Your task to perform on an android device: turn off notifications in google photos Image 0: 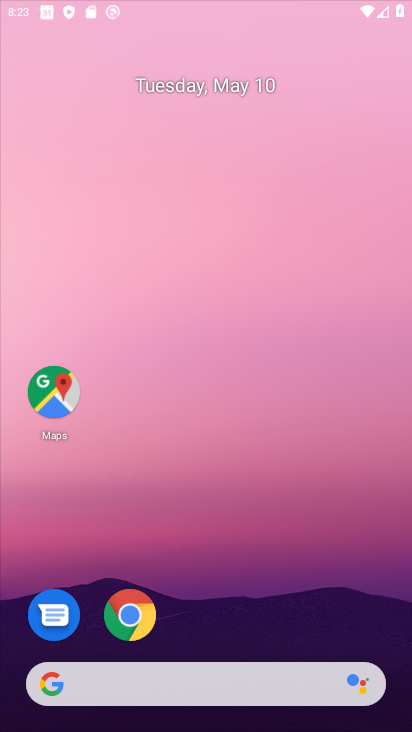
Step 0: click (212, 694)
Your task to perform on an android device: turn off notifications in google photos Image 1: 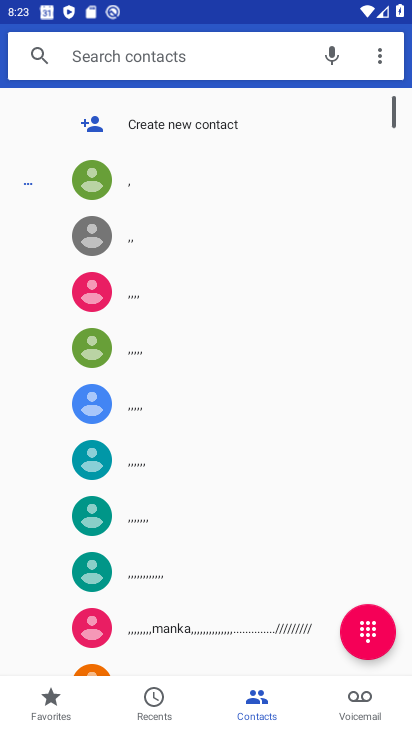
Step 1: press home button
Your task to perform on an android device: turn off notifications in google photos Image 2: 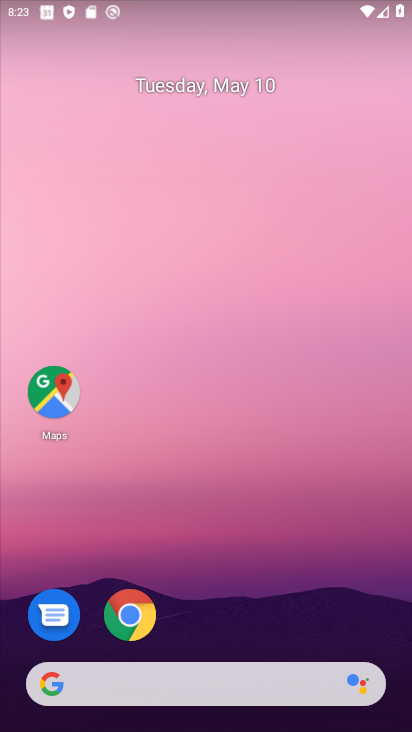
Step 2: drag from (262, 593) to (292, 312)
Your task to perform on an android device: turn off notifications in google photos Image 3: 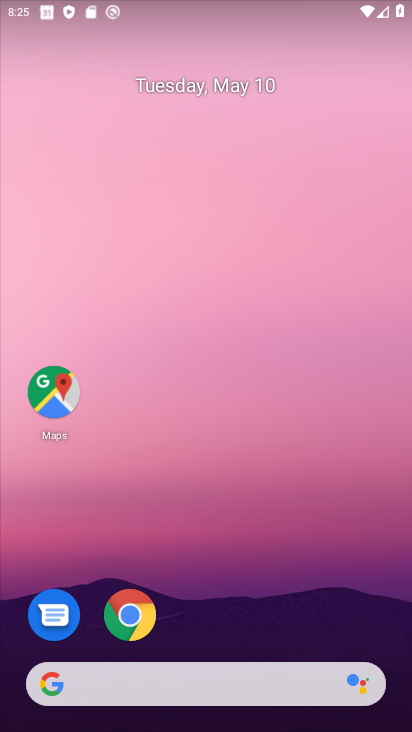
Step 3: drag from (177, 602) to (231, 224)
Your task to perform on an android device: turn off notifications in google photos Image 4: 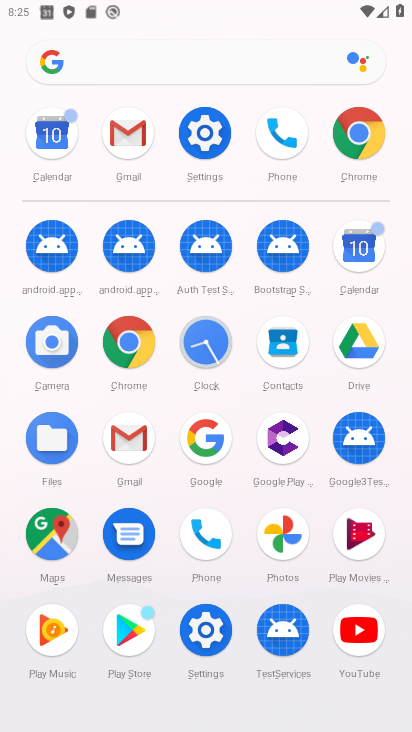
Step 4: click (285, 520)
Your task to perform on an android device: turn off notifications in google photos Image 5: 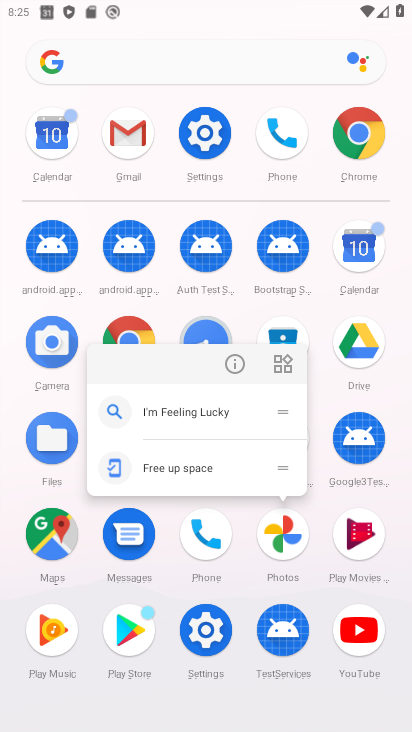
Step 5: click (225, 376)
Your task to perform on an android device: turn off notifications in google photos Image 6: 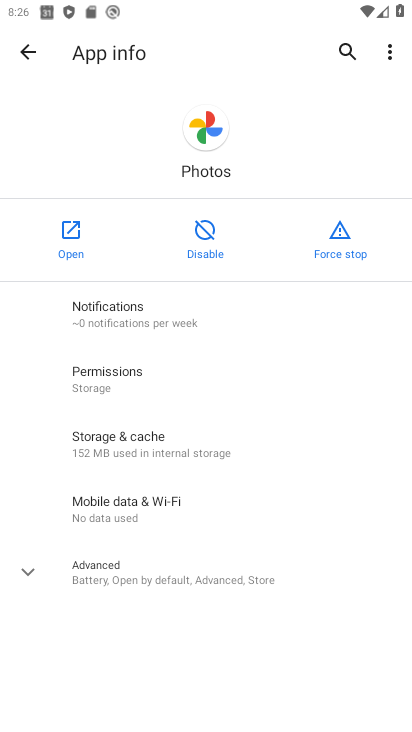
Step 6: drag from (184, 524) to (237, 178)
Your task to perform on an android device: turn off notifications in google photos Image 7: 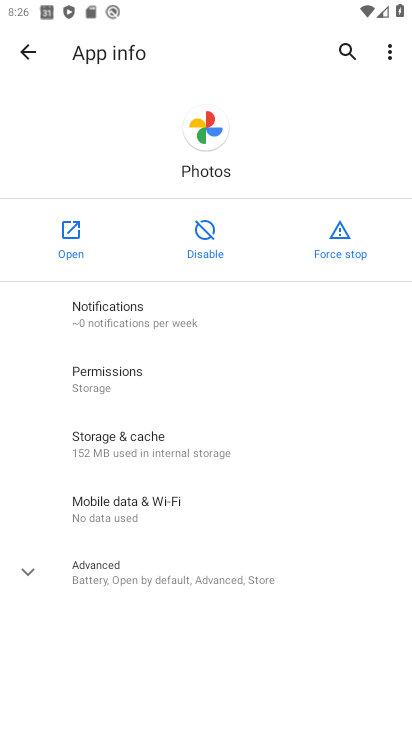
Step 7: click (74, 228)
Your task to perform on an android device: turn off notifications in google photos Image 8: 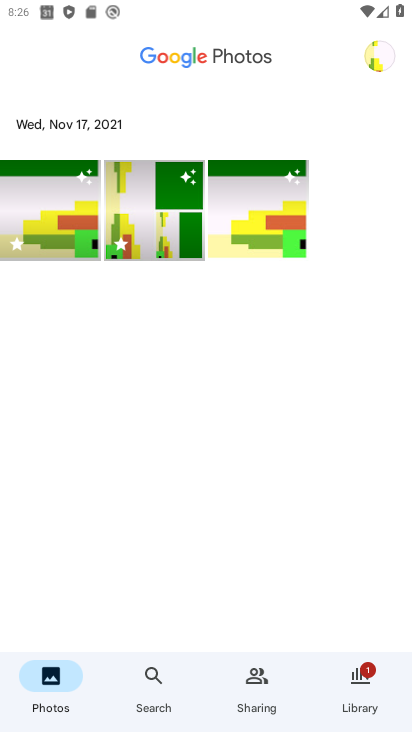
Step 8: click (367, 58)
Your task to perform on an android device: turn off notifications in google photos Image 9: 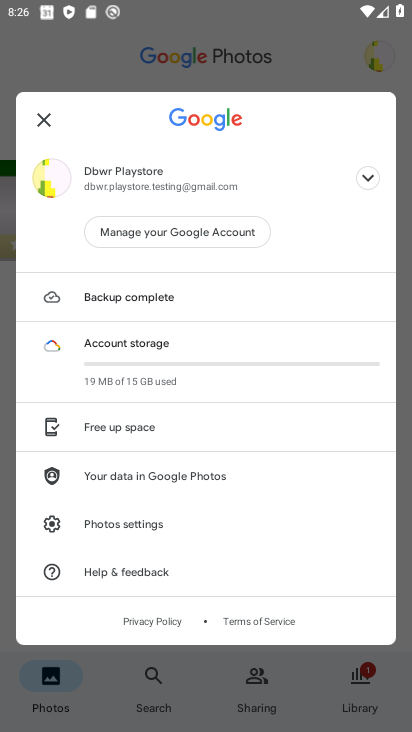
Step 9: click (133, 520)
Your task to perform on an android device: turn off notifications in google photos Image 10: 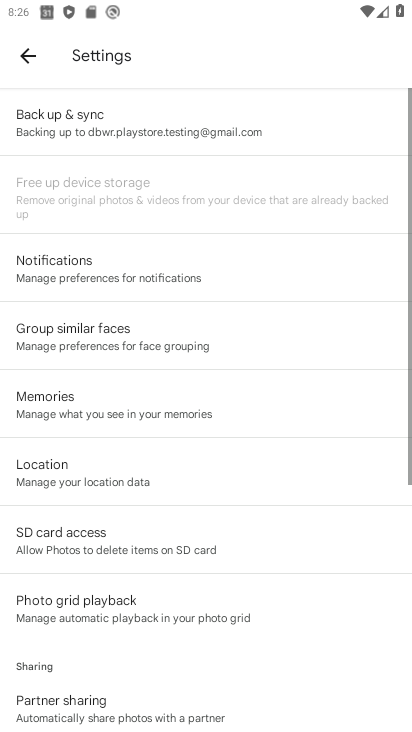
Step 10: drag from (181, 526) to (220, 272)
Your task to perform on an android device: turn off notifications in google photos Image 11: 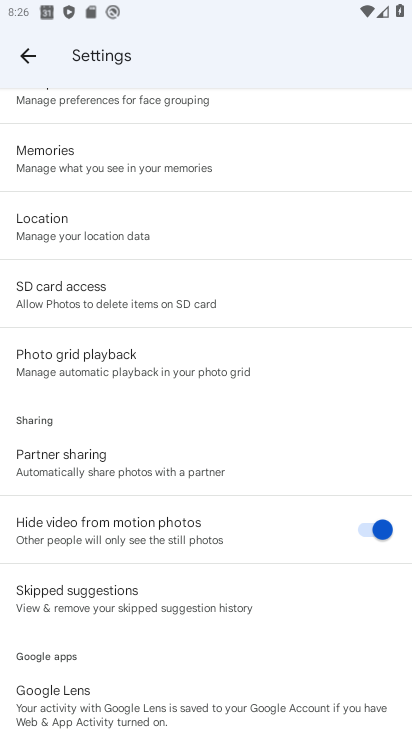
Step 11: drag from (150, 216) to (198, 654)
Your task to perform on an android device: turn off notifications in google photos Image 12: 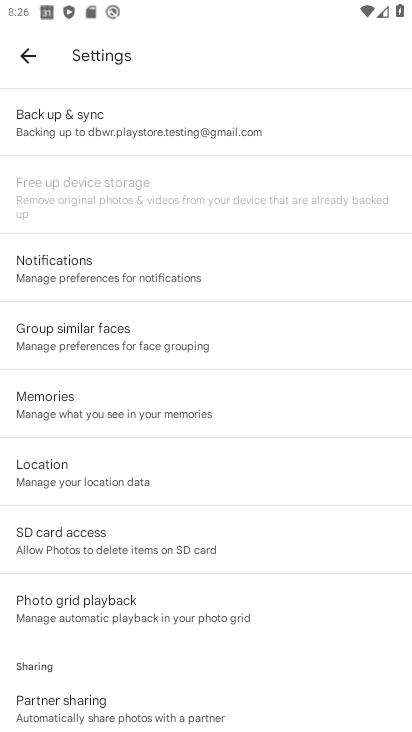
Step 12: click (95, 271)
Your task to perform on an android device: turn off notifications in google photos Image 13: 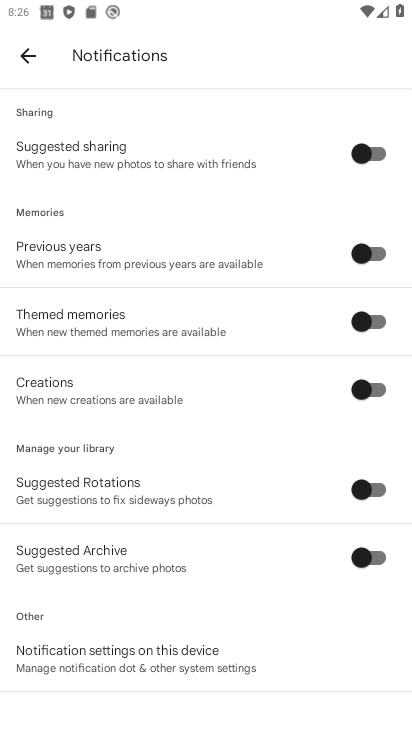
Step 13: drag from (193, 568) to (191, 310)
Your task to perform on an android device: turn off notifications in google photos Image 14: 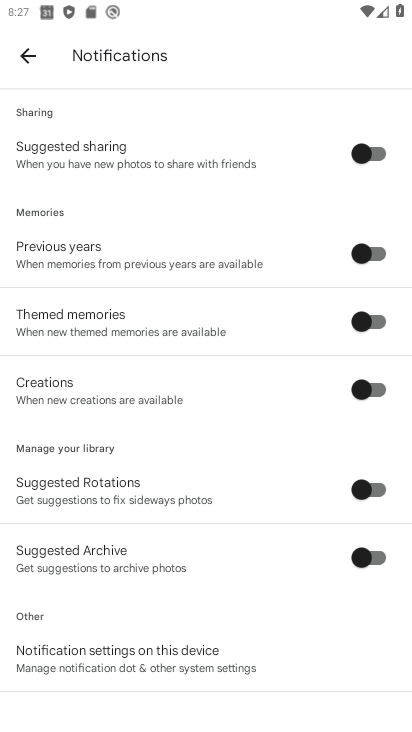
Step 14: drag from (184, 612) to (270, 309)
Your task to perform on an android device: turn off notifications in google photos Image 15: 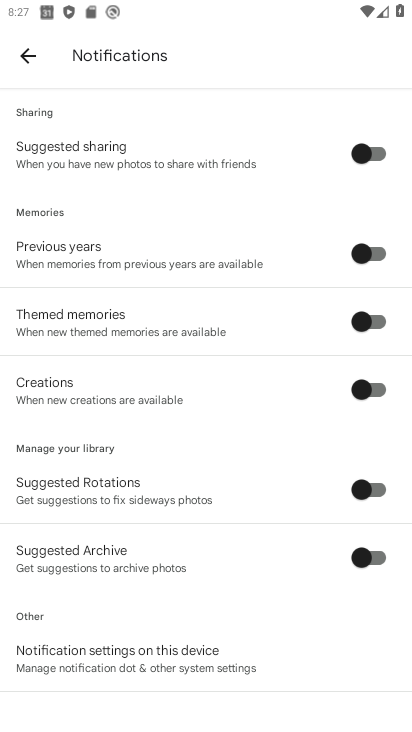
Step 15: click (215, 660)
Your task to perform on an android device: turn off notifications in google photos Image 16: 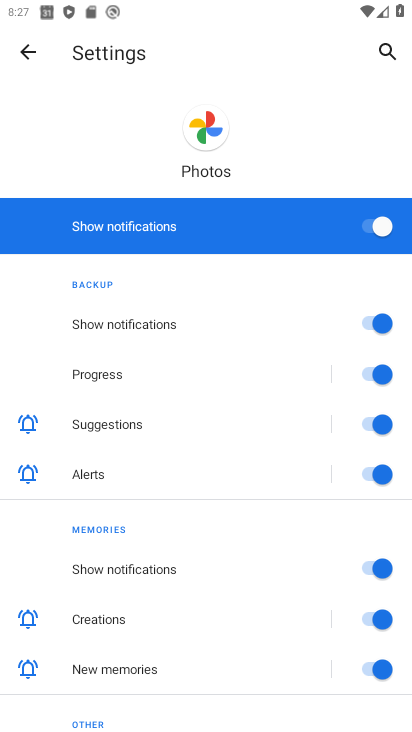
Step 16: click (393, 226)
Your task to perform on an android device: turn off notifications in google photos Image 17: 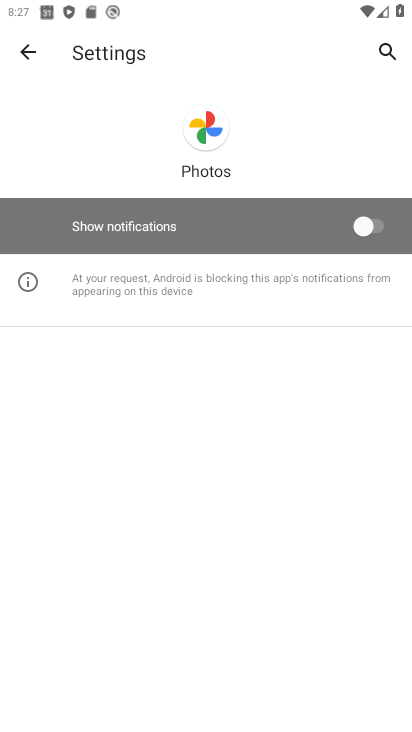
Step 17: task complete